Your task to perform on an android device: find photos in the google photos app Image 0: 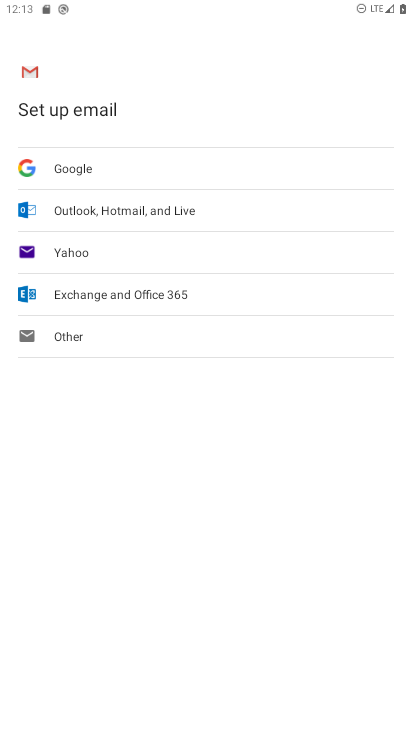
Step 0: press home button
Your task to perform on an android device: find photos in the google photos app Image 1: 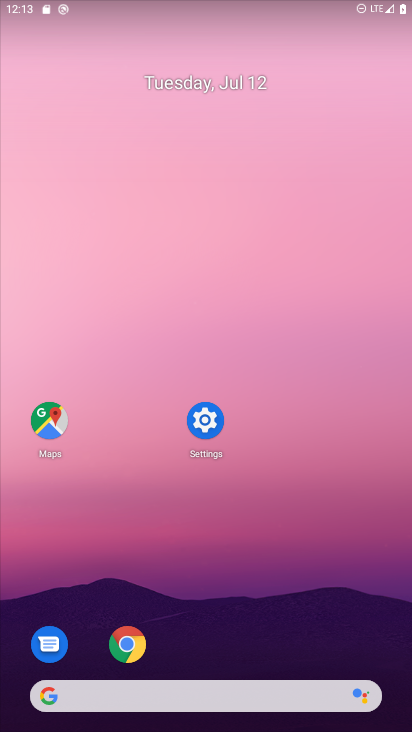
Step 1: drag from (393, 669) to (342, 162)
Your task to perform on an android device: find photos in the google photos app Image 2: 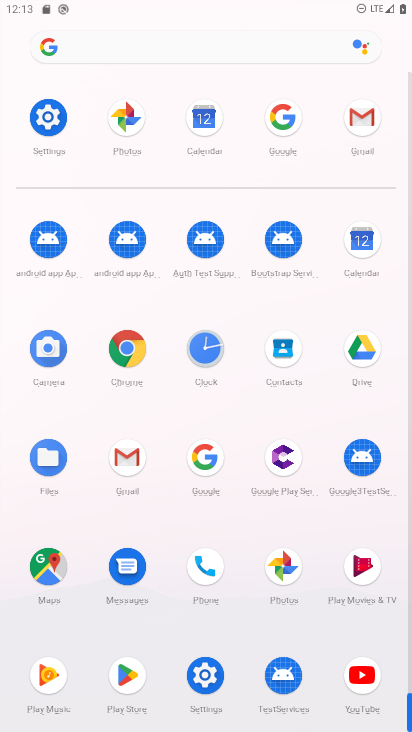
Step 2: click (292, 573)
Your task to perform on an android device: find photos in the google photos app Image 3: 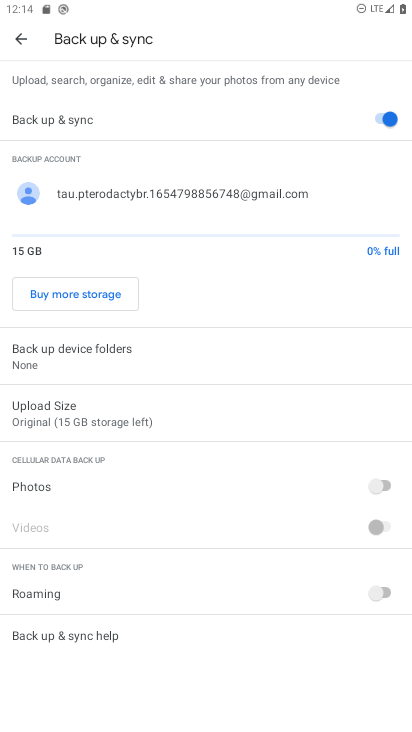
Step 3: click (16, 41)
Your task to perform on an android device: find photos in the google photos app Image 4: 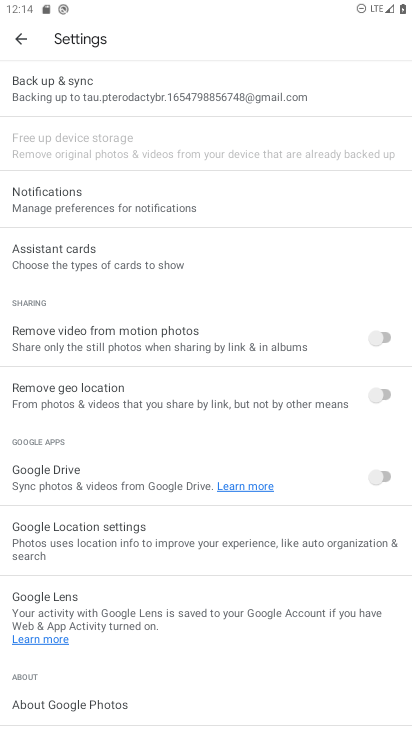
Step 4: click (12, 31)
Your task to perform on an android device: find photos in the google photos app Image 5: 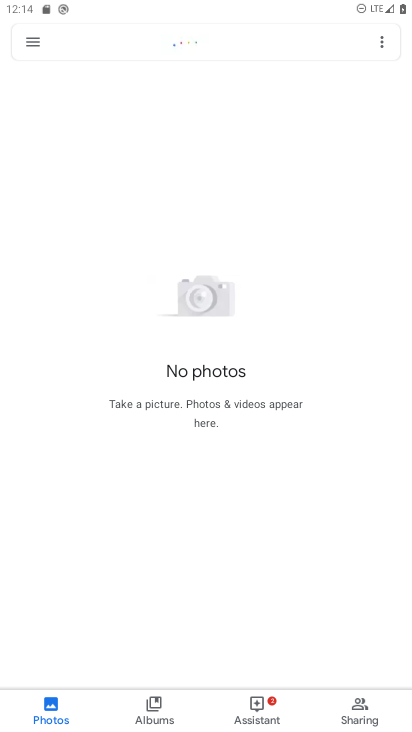
Step 5: click (55, 710)
Your task to perform on an android device: find photos in the google photos app Image 6: 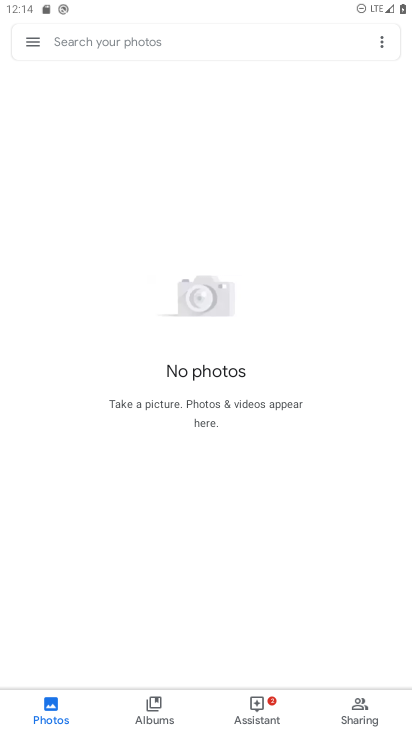
Step 6: task complete